Your task to perform on an android device: Open Youtube and go to the subscriptions tab Image 0: 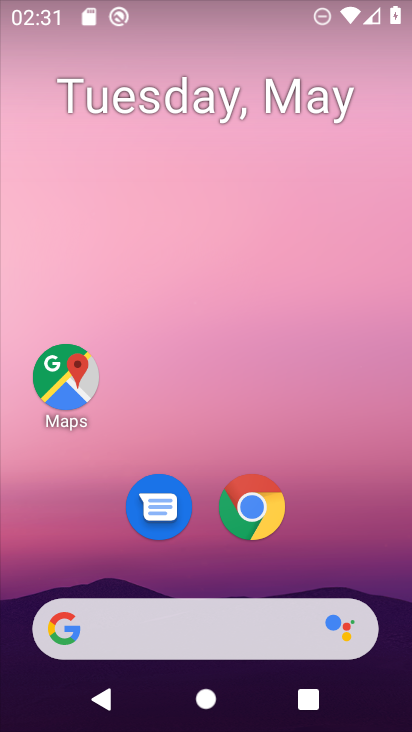
Step 0: drag from (198, 572) to (206, 198)
Your task to perform on an android device: Open Youtube and go to the subscriptions tab Image 1: 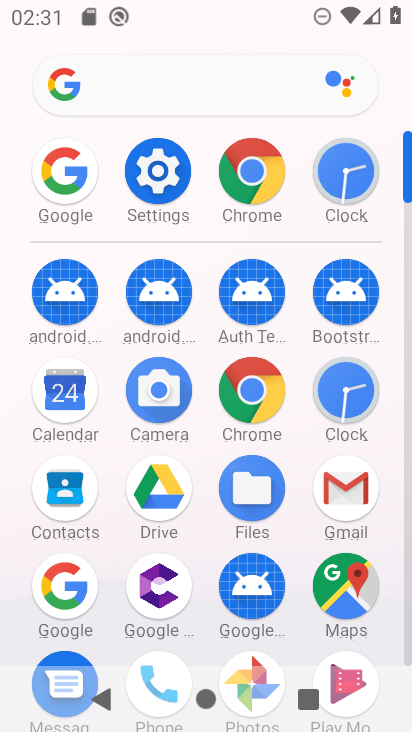
Step 1: drag from (287, 537) to (301, 269)
Your task to perform on an android device: Open Youtube and go to the subscriptions tab Image 2: 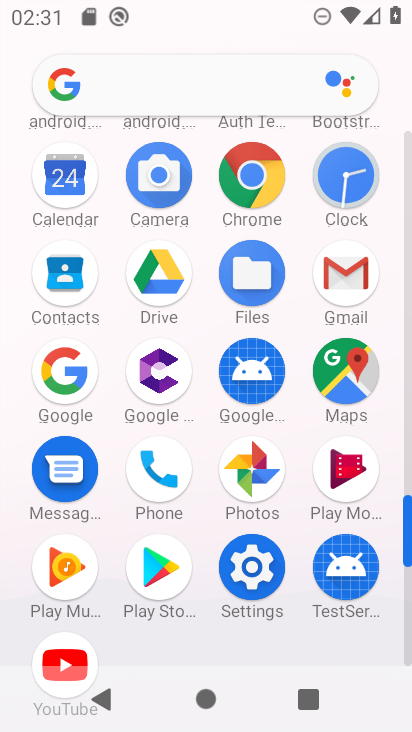
Step 2: click (66, 650)
Your task to perform on an android device: Open Youtube and go to the subscriptions tab Image 3: 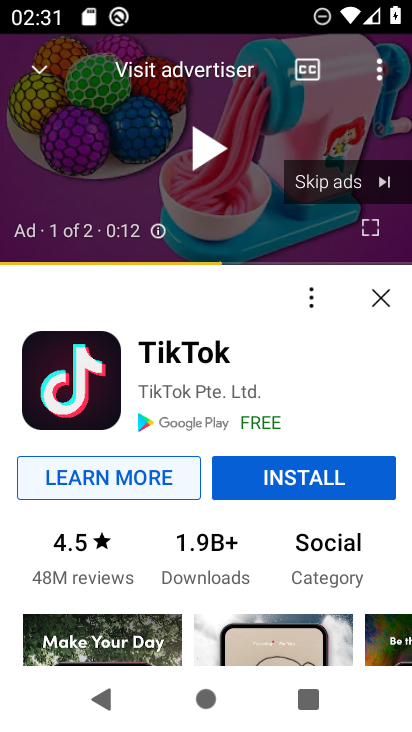
Step 3: click (376, 290)
Your task to perform on an android device: Open Youtube and go to the subscriptions tab Image 4: 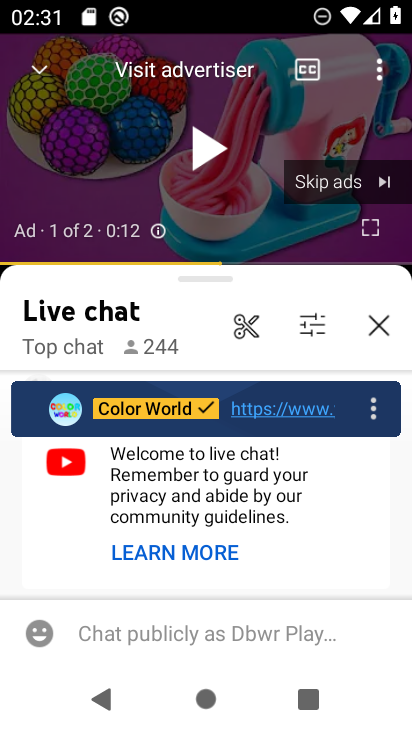
Step 4: press back button
Your task to perform on an android device: Open Youtube and go to the subscriptions tab Image 5: 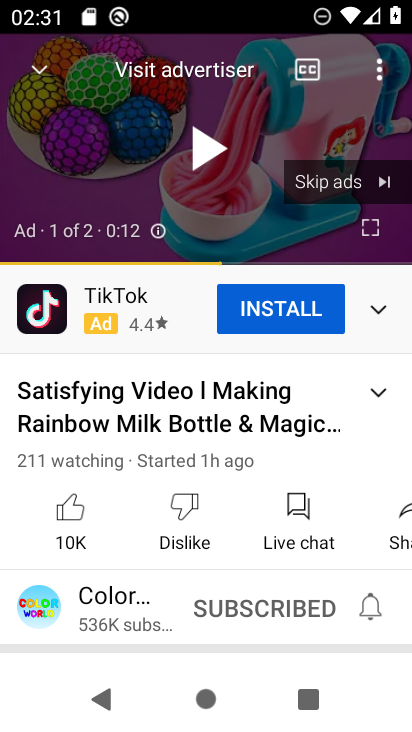
Step 5: press back button
Your task to perform on an android device: Open Youtube and go to the subscriptions tab Image 6: 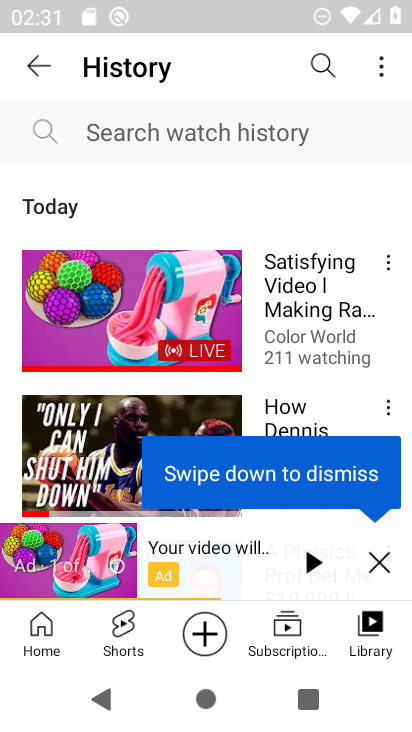
Step 6: click (286, 624)
Your task to perform on an android device: Open Youtube and go to the subscriptions tab Image 7: 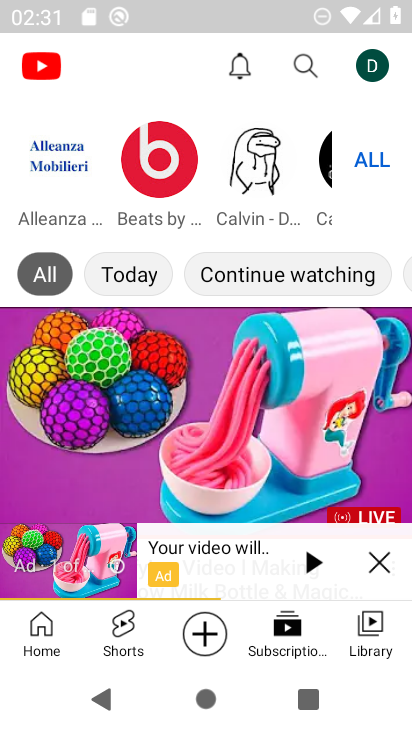
Step 7: task complete